Your task to perform on an android device: Open Wikipedia Image 0: 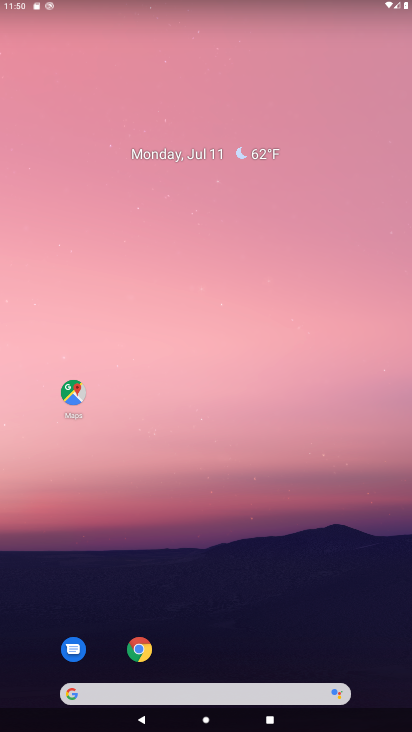
Step 0: click (136, 656)
Your task to perform on an android device: Open Wikipedia Image 1: 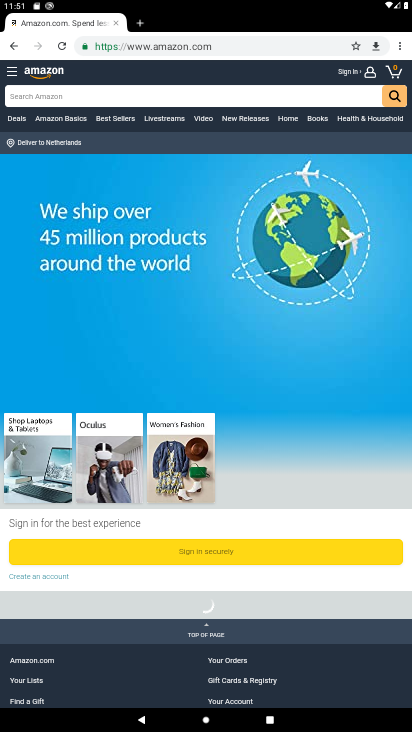
Step 1: click (403, 45)
Your task to perform on an android device: Open Wikipedia Image 2: 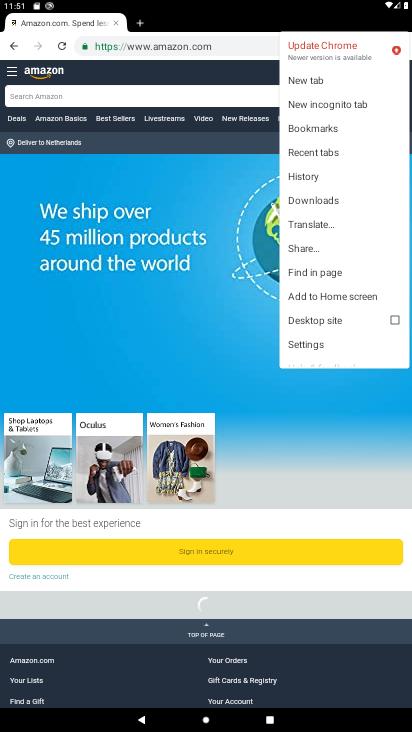
Step 2: click (326, 79)
Your task to perform on an android device: Open Wikipedia Image 3: 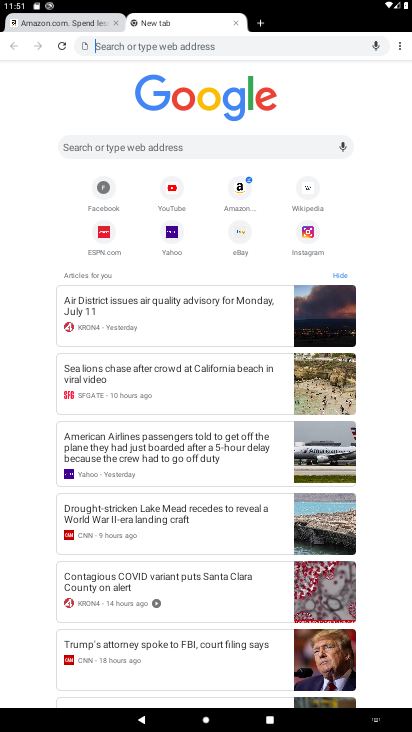
Step 3: click (314, 189)
Your task to perform on an android device: Open Wikipedia Image 4: 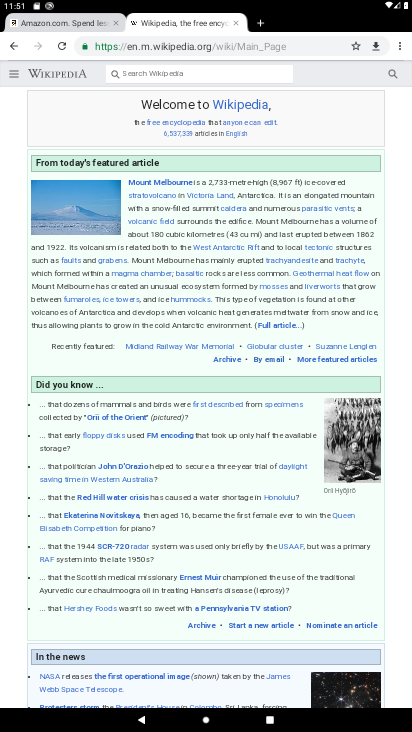
Step 4: task complete